Your task to perform on an android device: Open Chrome and go to the settings page Image 0: 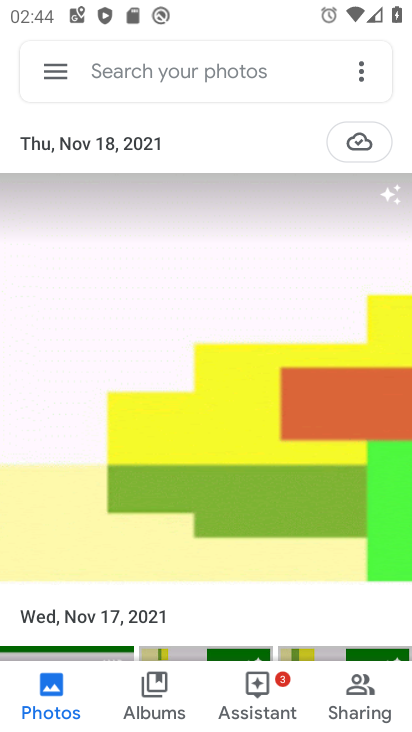
Step 0: press home button
Your task to perform on an android device: Open Chrome and go to the settings page Image 1: 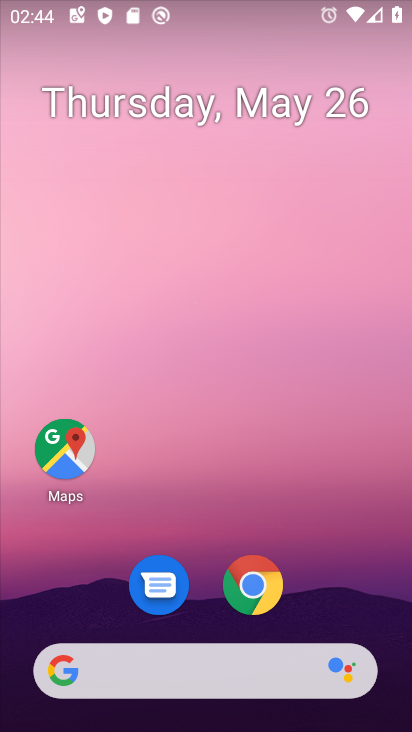
Step 1: click (260, 578)
Your task to perform on an android device: Open Chrome and go to the settings page Image 2: 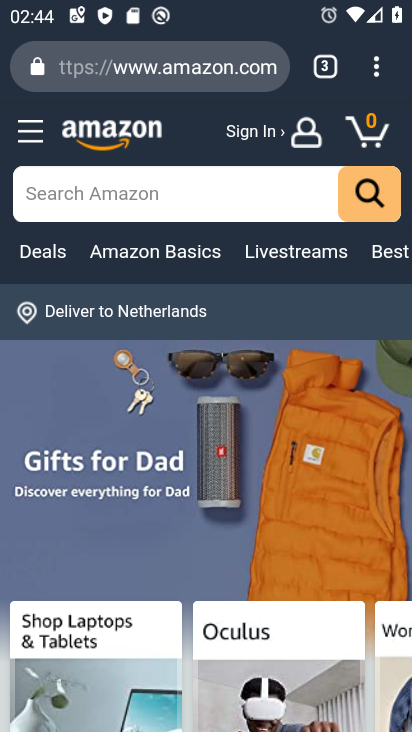
Step 2: click (375, 71)
Your task to perform on an android device: Open Chrome and go to the settings page Image 3: 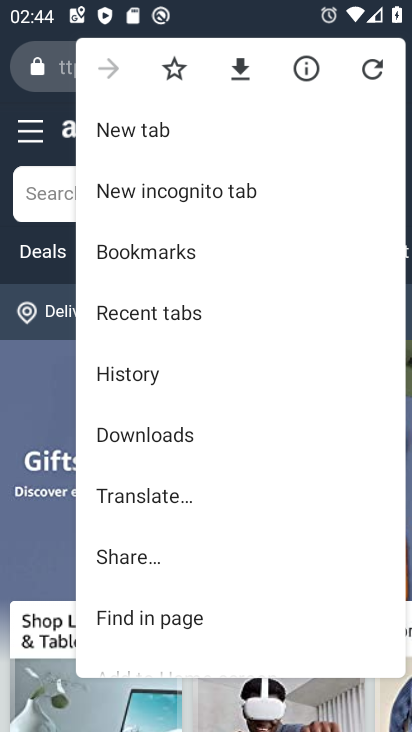
Step 3: drag from (284, 455) to (280, 161)
Your task to perform on an android device: Open Chrome and go to the settings page Image 4: 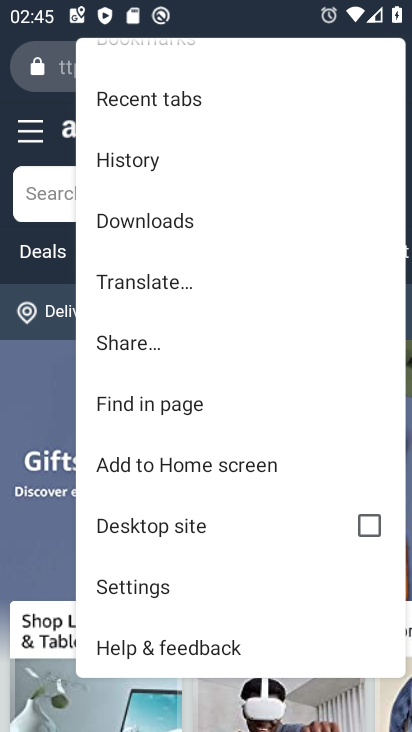
Step 4: click (167, 584)
Your task to perform on an android device: Open Chrome and go to the settings page Image 5: 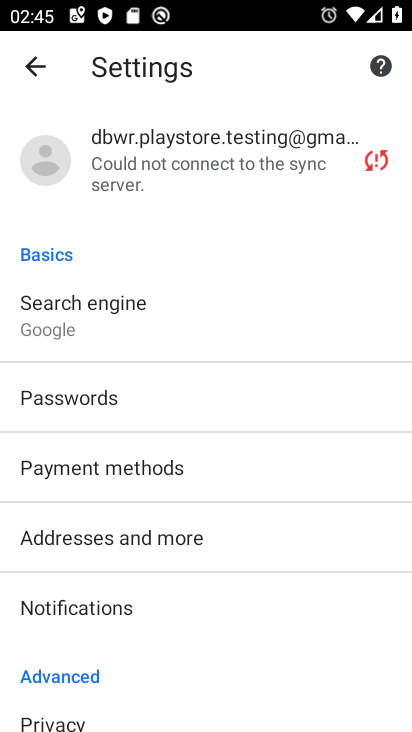
Step 5: task complete